Your task to perform on an android device: Do I have any events today? Image 0: 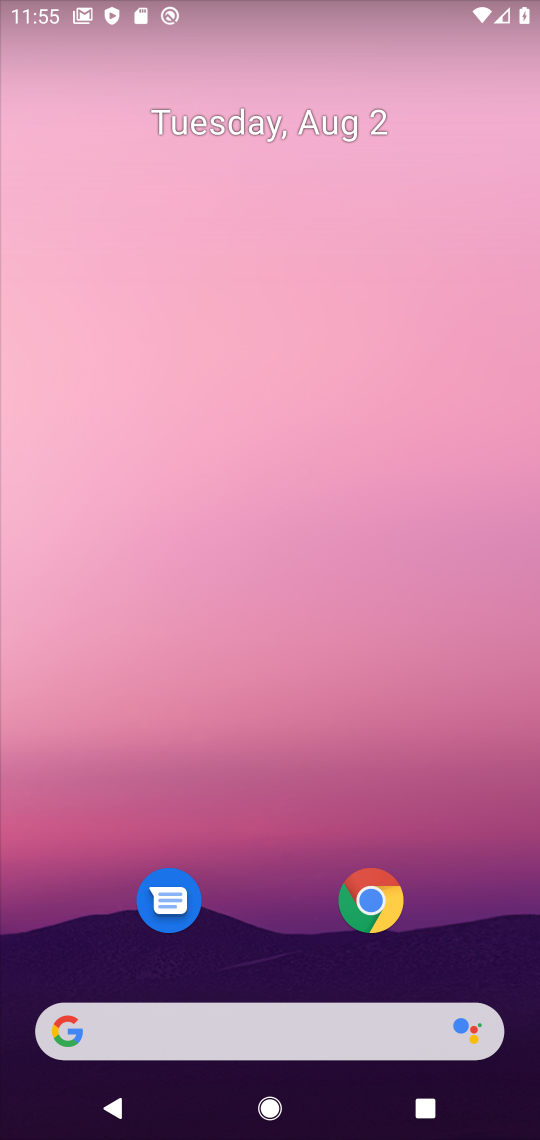
Step 0: drag from (245, 685) to (249, 3)
Your task to perform on an android device: Do I have any events today? Image 1: 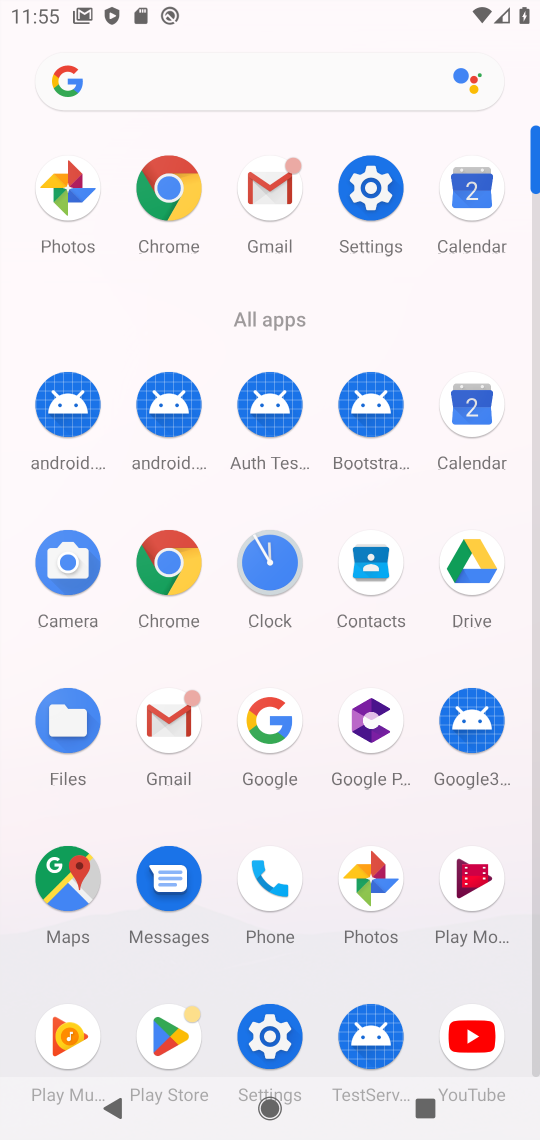
Step 1: click (481, 401)
Your task to perform on an android device: Do I have any events today? Image 2: 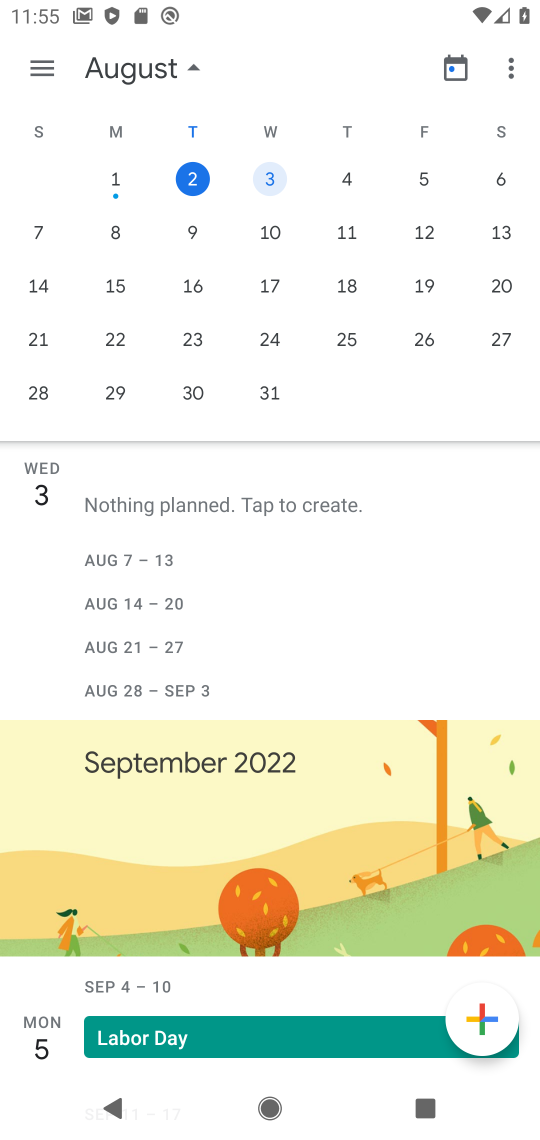
Step 2: click (190, 183)
Your task to perform on an android device: Do I have any events today? Image 3: 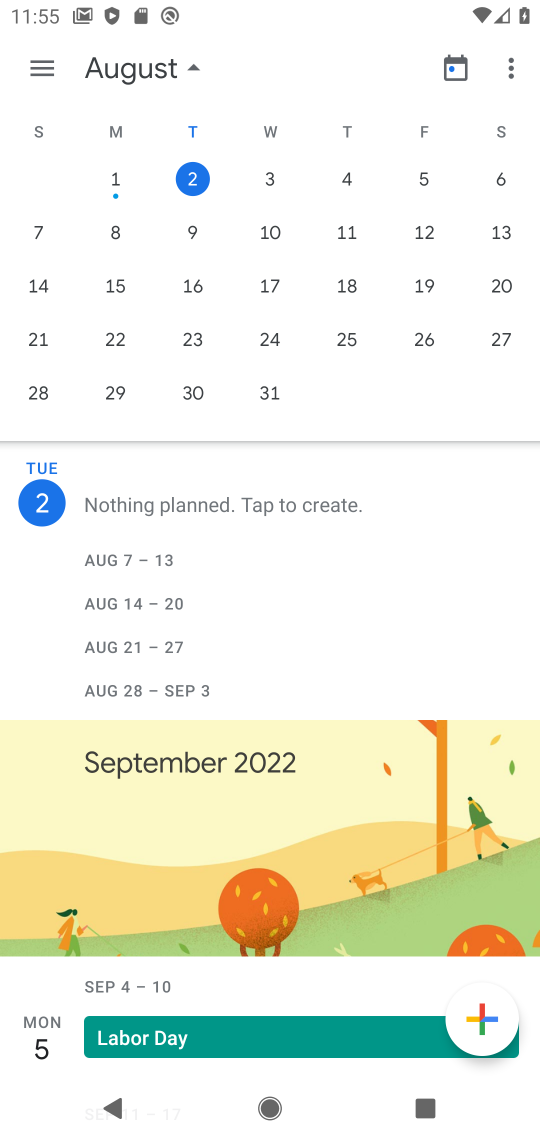
Step 3: click (33, 501)
Your task to perform on an android device: Do I have any events today? Image 4: 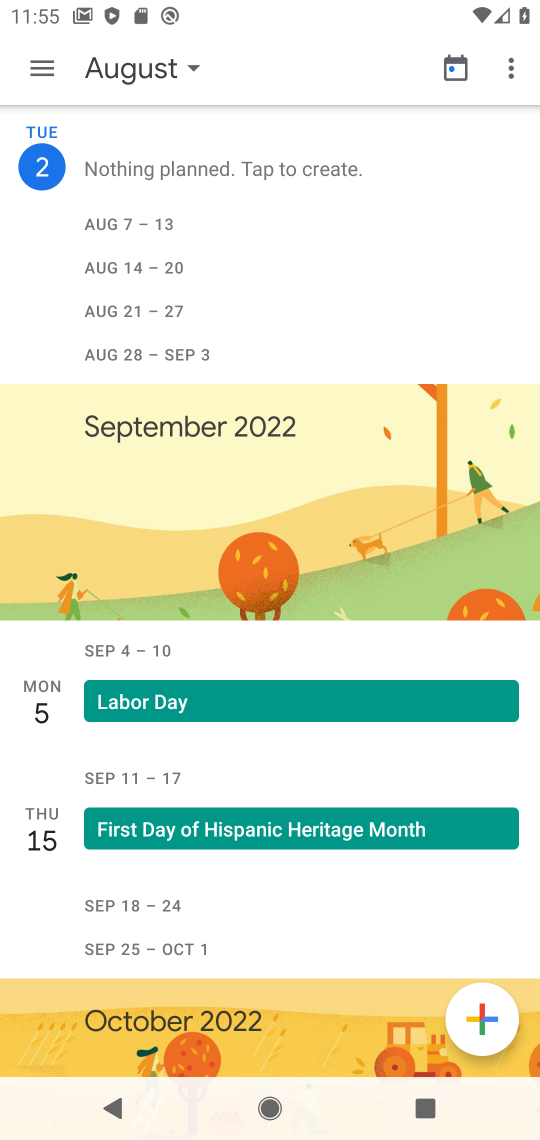
Step 4: click (29, 156)
Your task to perform on an android device: Do I have any events today? Image 5: 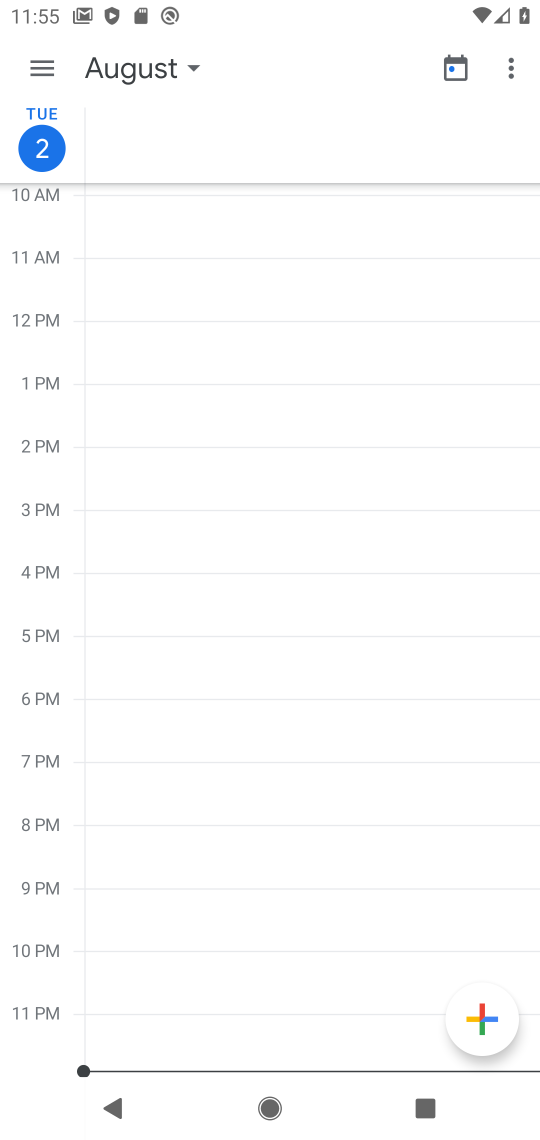
Step 5: task complete